Your task to perform on an android device: Go to eBay Image 0: 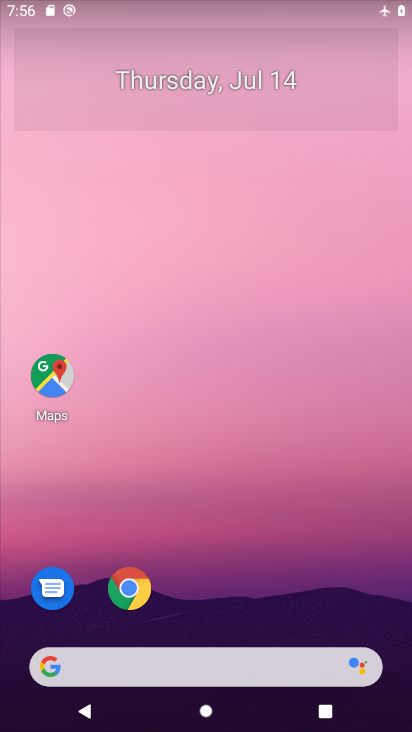
Step 0: click (148, 599)
Your task to perform on an android device: Go to eBay Image 1: 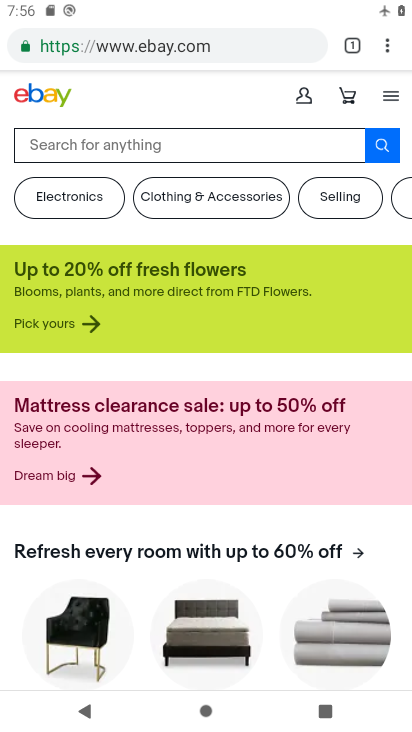
Step 1: click (346, 53)
Your task to perform on an android device: Go to eBay Image 2: 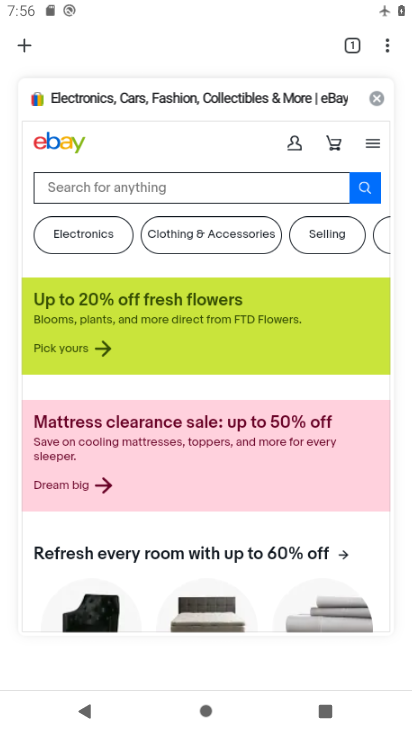
Step 2: click (14, 52)
Your task to perform on an android device: Go to eBay Image 3: 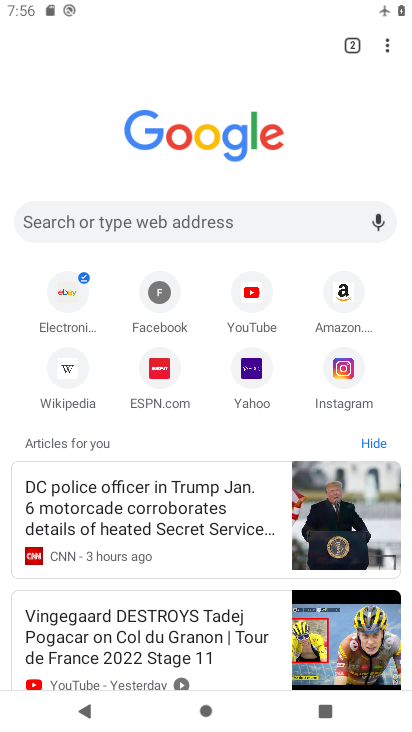
Step 3: click (80, 297)
Your task to perform on an android device: Go to eBay Image 4: 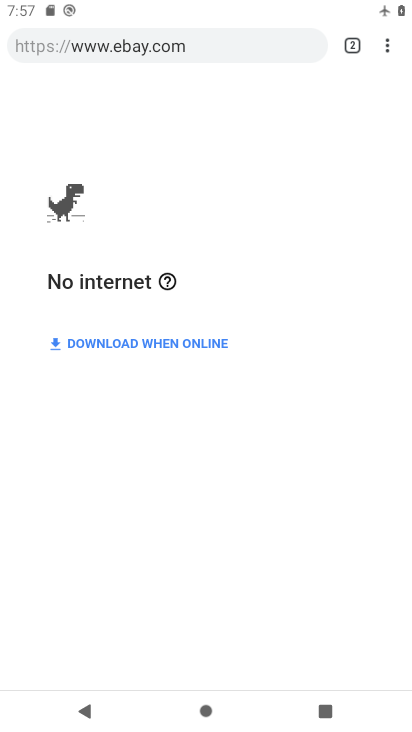
Step 4: task complete